Your task to perform on an android device: Open the stopwatch Image 0: 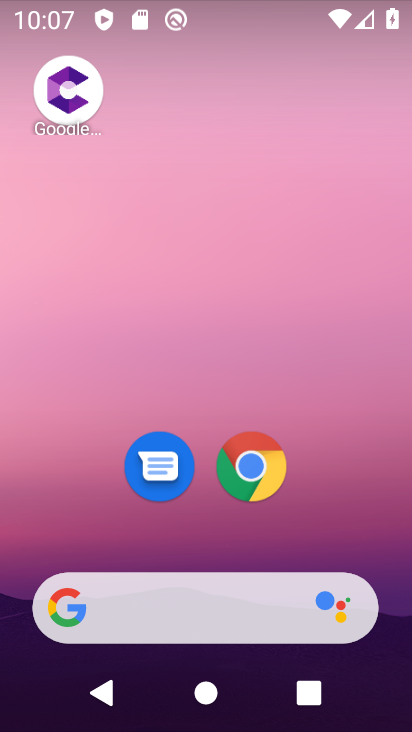
Step 0: drag from (139, 567) to (333, 78)
Your task to perform on an android device: Open the stopwatch Image 1: 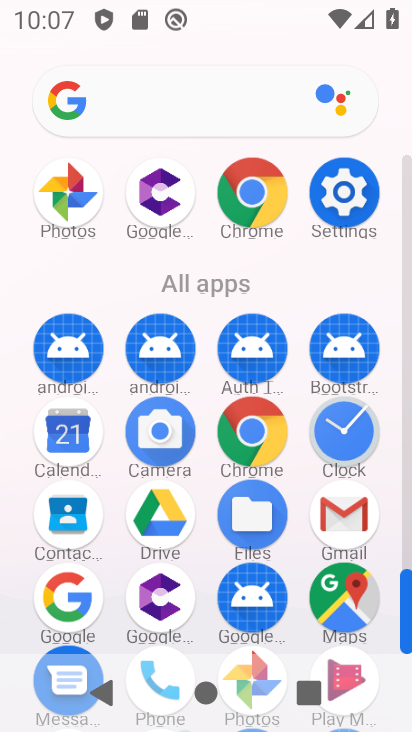
Step 1: click (340, 440)
Your task to perform on an android device: Open the stopwatch Image 2: 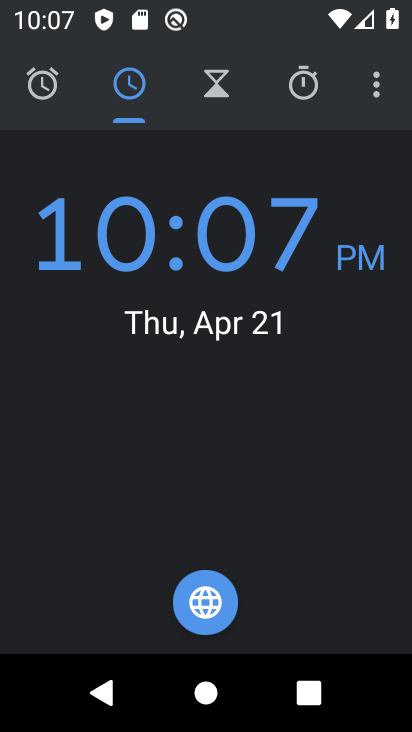
Step 2: click (303, 91)
Your task to perform on an android device: Open the stopwatch Image 3: 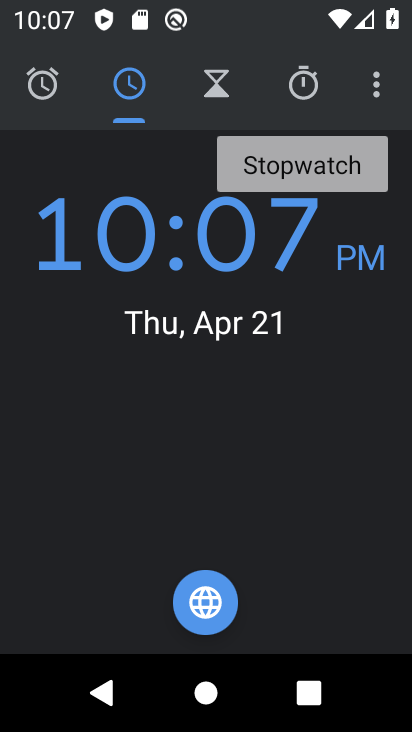
Step 3: click (309, 96)
Your task to perform on an android device: Open the stopwatch Image 4: 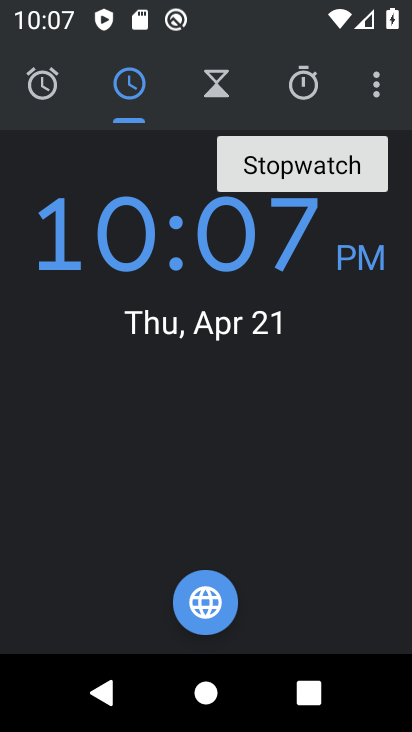
Step 4: click (306, 87)
Your task to perform on an android device: Open the stopwatch Image 5: 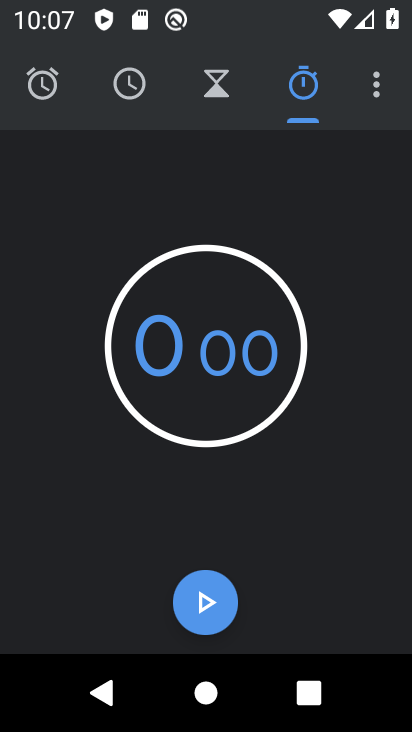
Step 5: click (205, 339)
Your task to perform on an android device: Open the stopwatch Image 6: 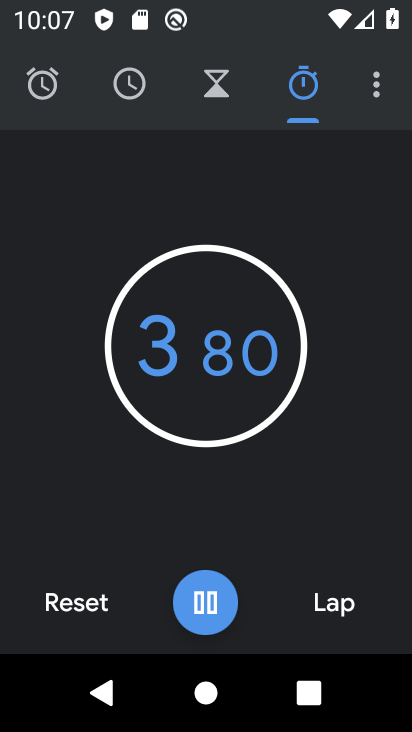
Step 6: click (214, 363)
Your task to perform on an android device: Open the stopwatch Image 7: 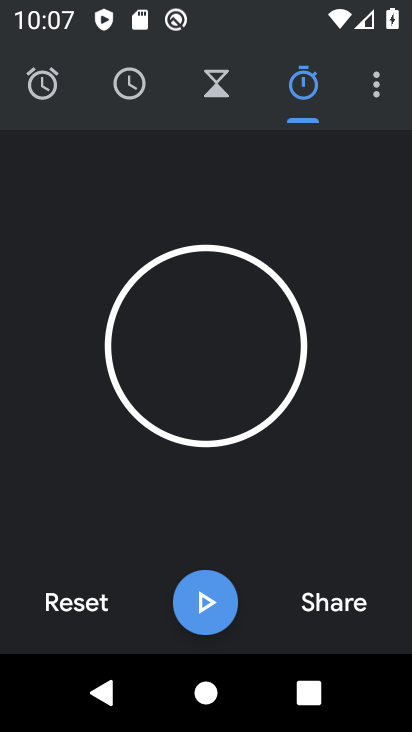
Step 7: task complete